Your task to perform on an android device: delete the emails in spam in the gmail app Image 0: 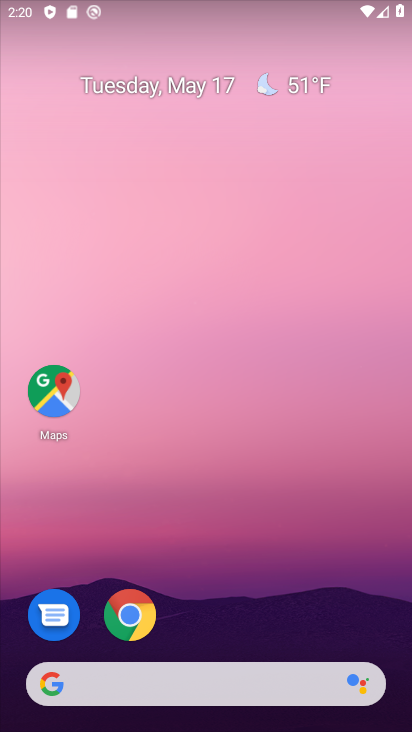
Step 0: drag from (223, 633) to (251, 124)
Your task to perform on an android device: delete the emails in spam in the gmail app Image 1: 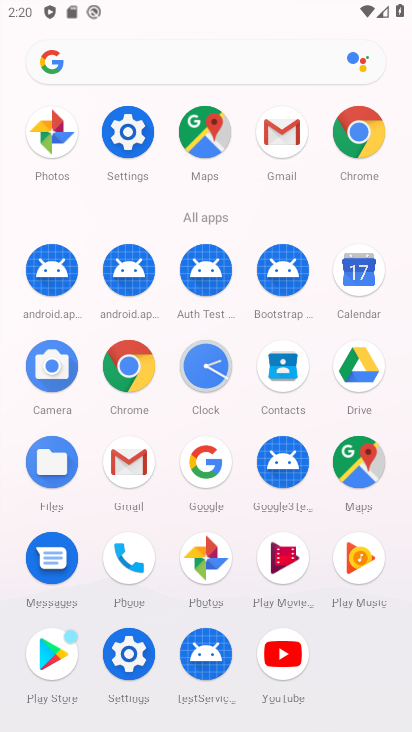
Step 1: click (131, 458)
Your task to perform on an android device: delete the emails in spam in the gmail app Image 2: 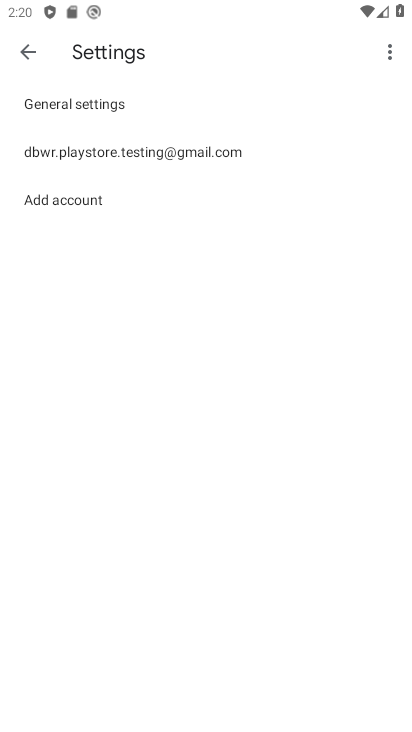
Step 2: click (35, 55)
Your task to perform on an android device: delete the emails in spam in the gmail app Image 3: 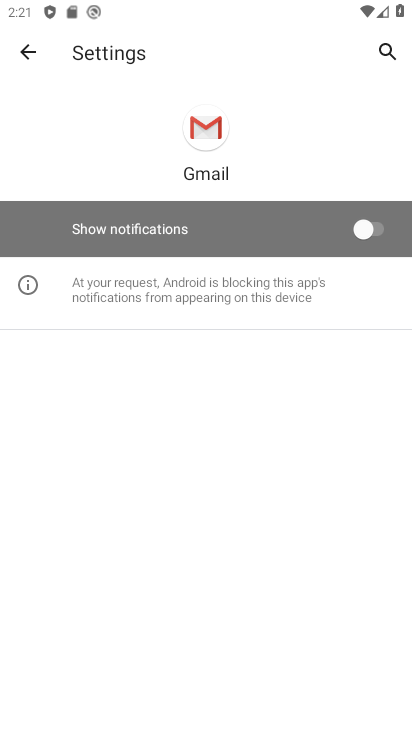
Step 3: click (28, 46)
Your task to perform on an android device: delete the emails in spam in the gmail app Image 4: 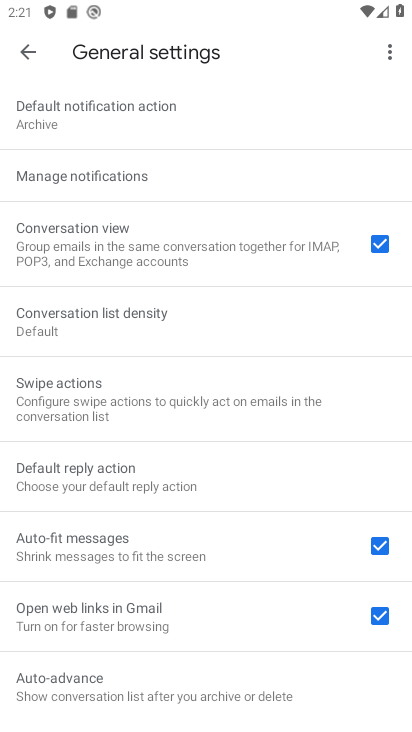
Step 4: click (35, 44)
Your task to perform on an android device: delete the emails in spam in the gmail app Image 5: 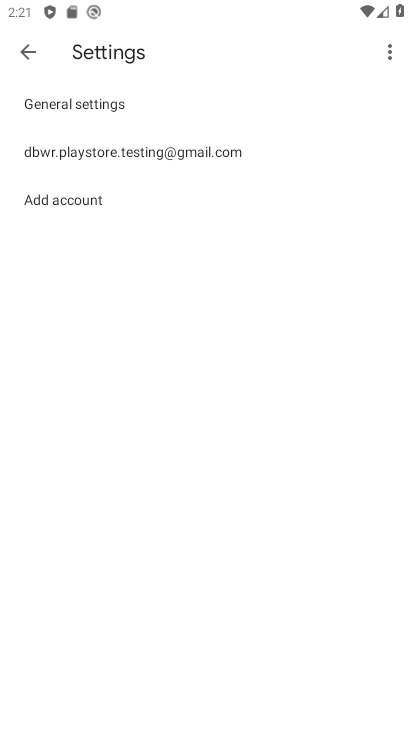
Step 5: click (29, 55)
Your task to perform on an android device: delete the emails in spam in the gmail app Image 6: 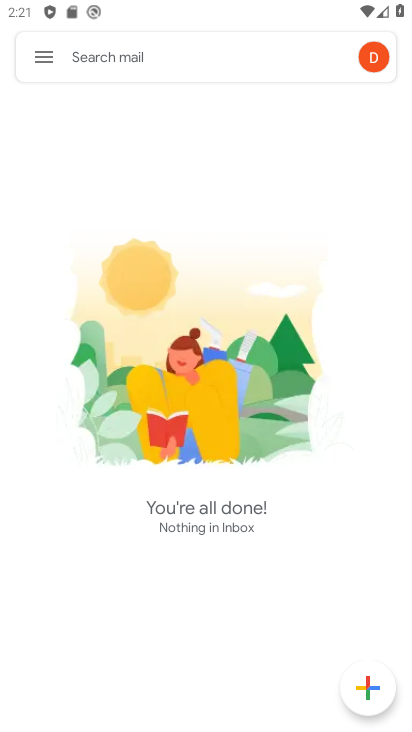
Step 6: click (44, 56)
Your task to perform on an android device: delete the emails in spam in the gmail app Image 7: 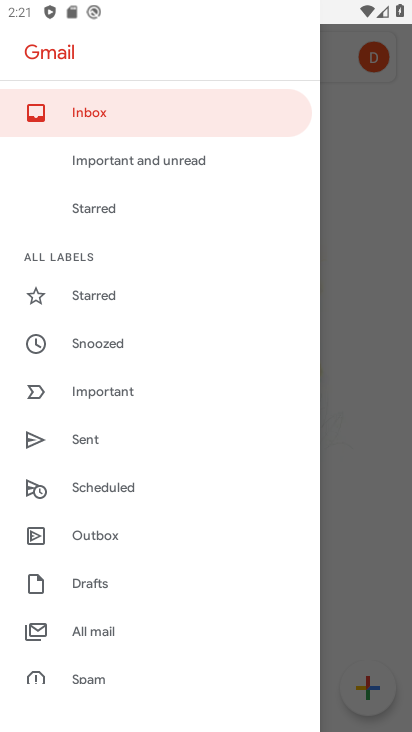
Step 7: click (110, 677)
Your task to perform on an android device: delete the emails in spam in the gmail app Image 8: 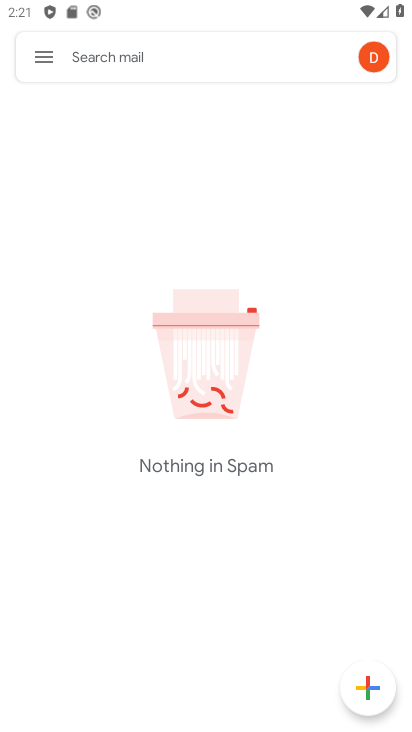
Step 8: task complete